Your task to perform on an android device: allow notifications from all sites in the chrome app Image 0: 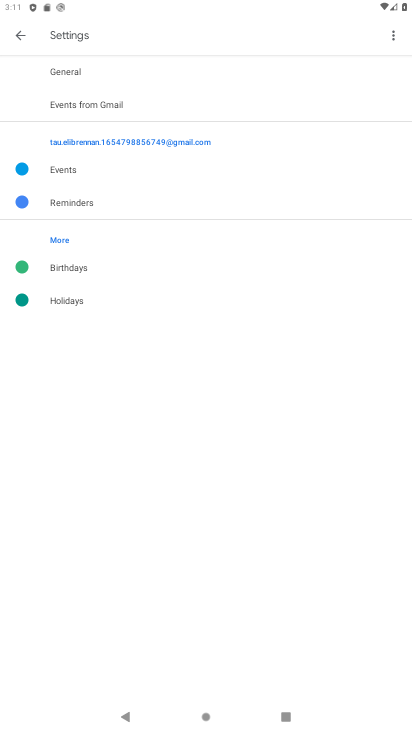
Step 0: press home button
Your task to perform on an android device: allow notifications from all sites in the chrome app Image 1: 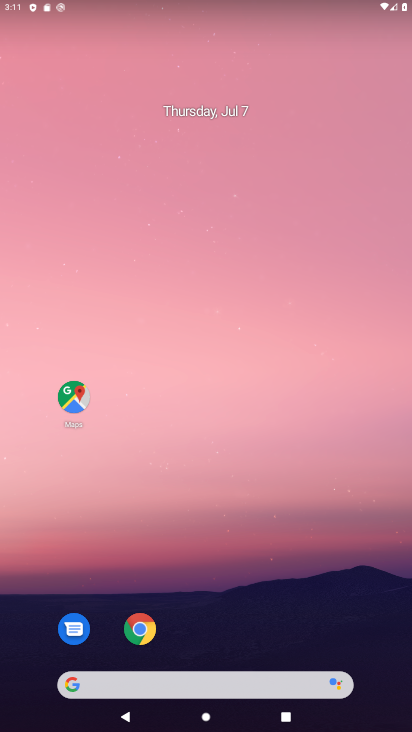
Step 1: click (135, 628)
Your task to perform on an android device: allow notifications from all sites in the chrome app Image 2: 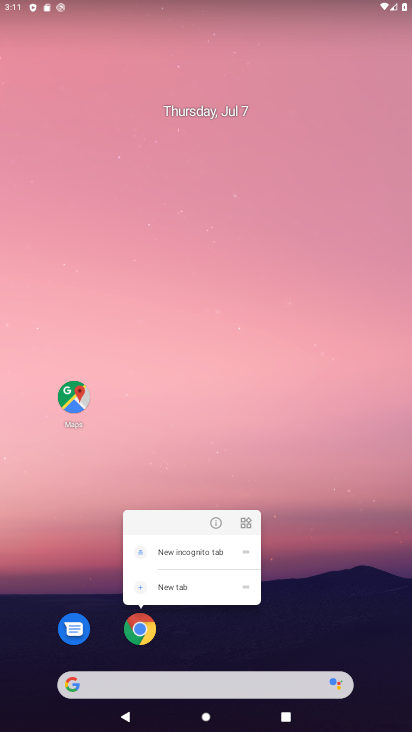
Step 2: click (135, 641)
Your task to perform on an android device: allow notifications from all sites in the chrome app Image 3: 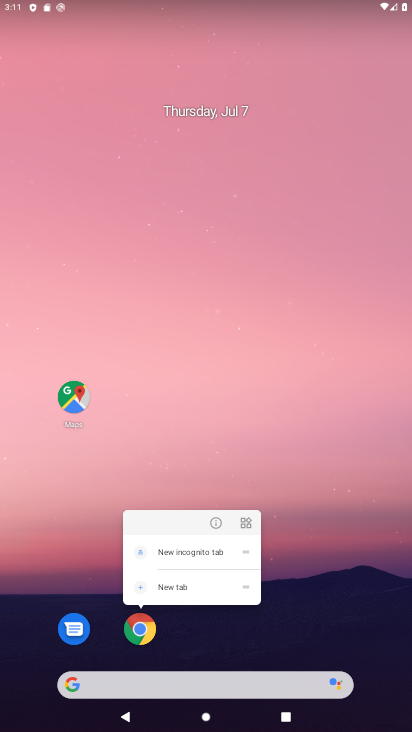
Step 3: click (143, 626)
Your task to perform on an android device: allow notifications from all sites in the chrome app Image 4: 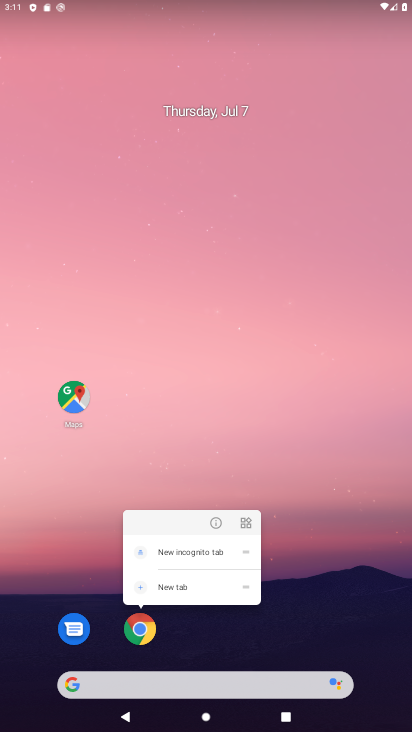
Step 4: click (134, 621)
Your task to perform on an android device: allow notifications from all sites in the chrome app Image 5: 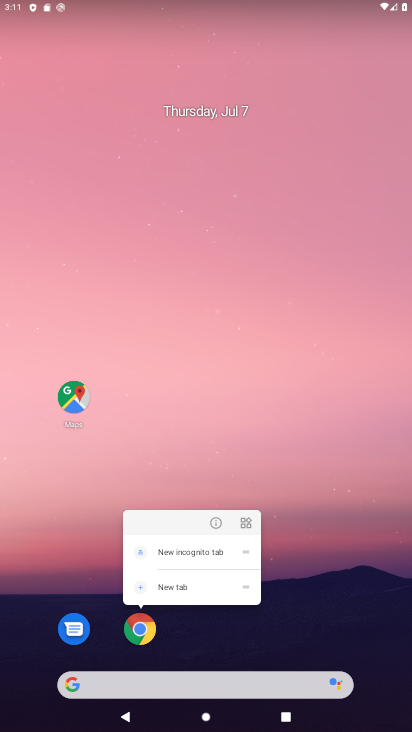
Step 5: click (143, 629)
Your task to perform on an android device: allow notifications from all sites in the chrome app Image 6: 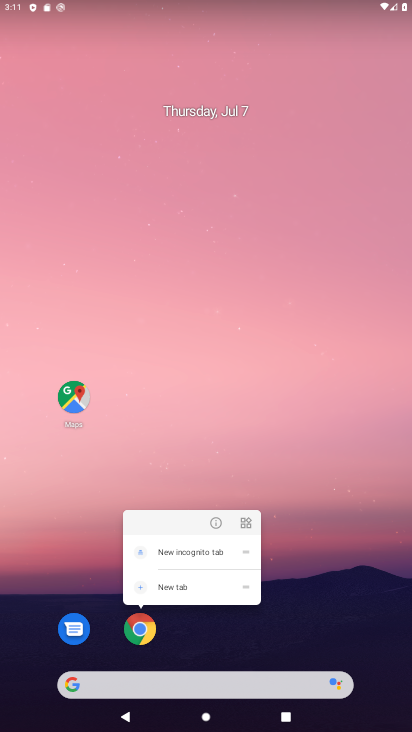
Step 6: click (126, 631)
Your task to perform on an android device: allow notifications from all sites in the chrome app Image 7: 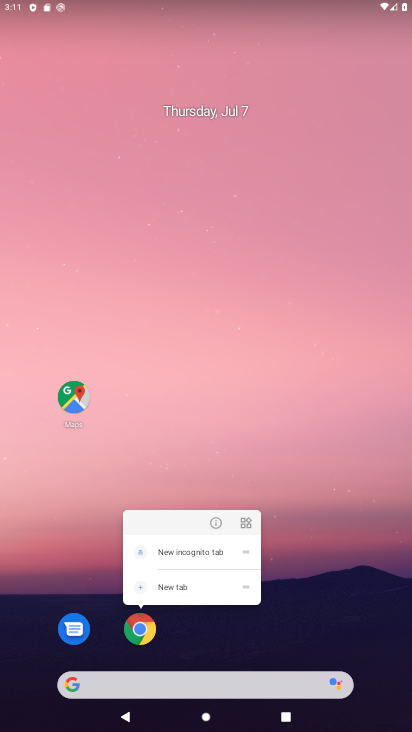
Step 7: click (128, 634)
Your task to perform on an android device: allow notifications from all sites in the chrome app Image 8: 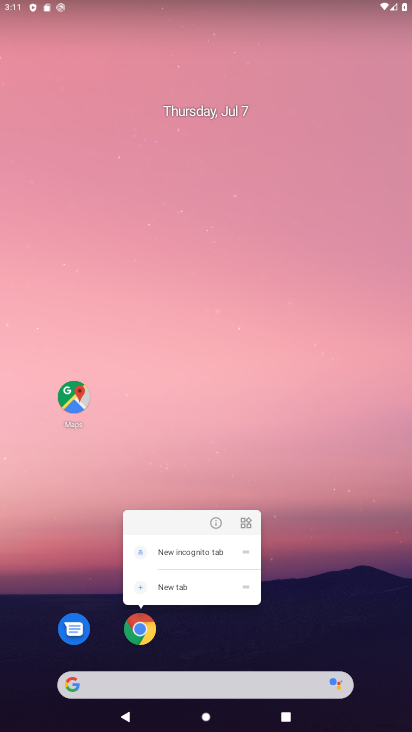
Step 8: click (133, 629)
Your task to perform on an android device: allow notifications from all sites in the chrome app Image 9: 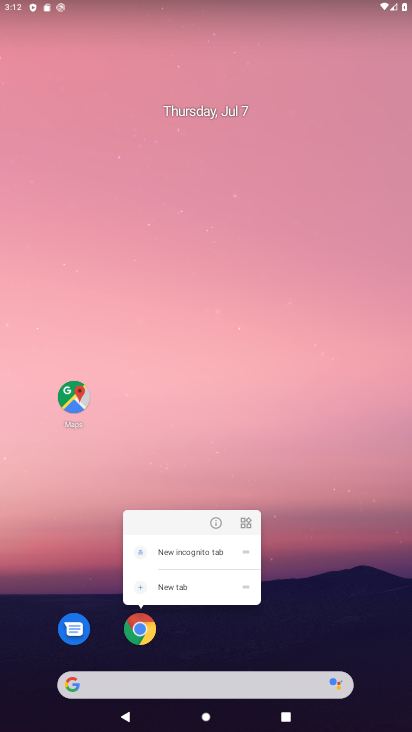
Step 9: task complete